Your task to perform on an android device: Open the calendar app, open the side menu, and click the "Day" option Image 0: 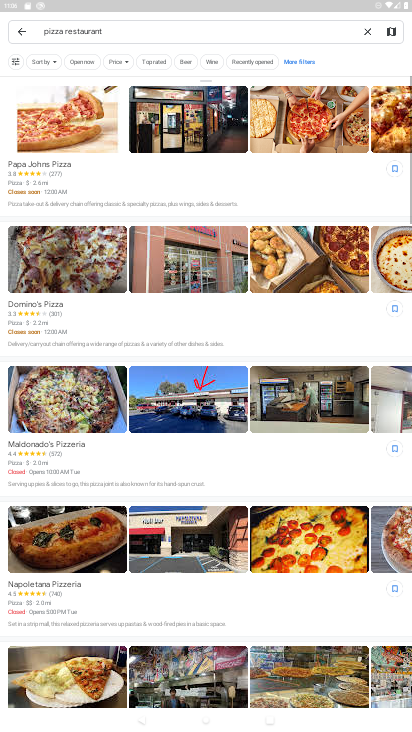
Step 0: press home button
Your task to perform on an android device: Open the calendar app, open the side menu, and click the "Day" option Image 1: 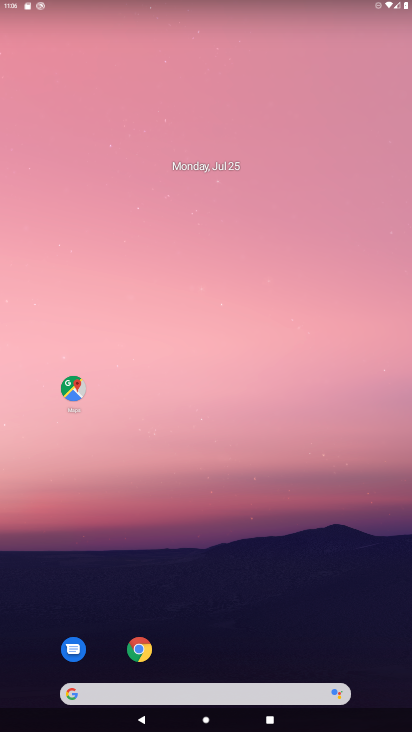
Step 1: drag from (398, 678) to (351, 143)
Your task to perform on an android device: Open the calendar app, open the side menu, and click the "Day" option Image 2: 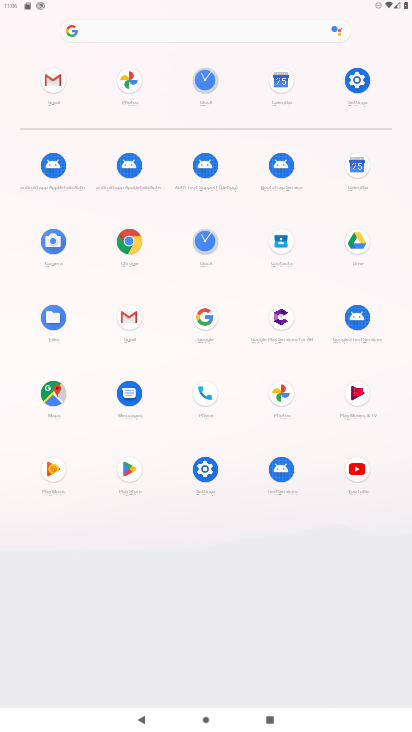
Step 2: click (356, 165)
Your task to perform on an android device: Open the calendar app, open the side menu, and click the "Day" option Image 3: 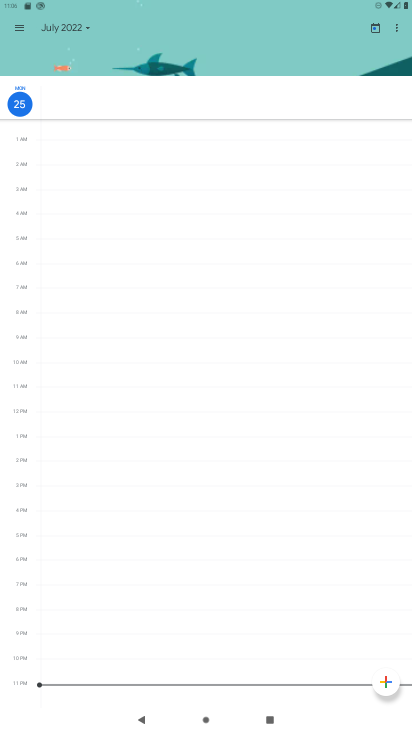
Step 3: click (20, 30)
Your task to perform on an android device: Open the calendar app, open the side menu, and click the "Day" option Image 4: 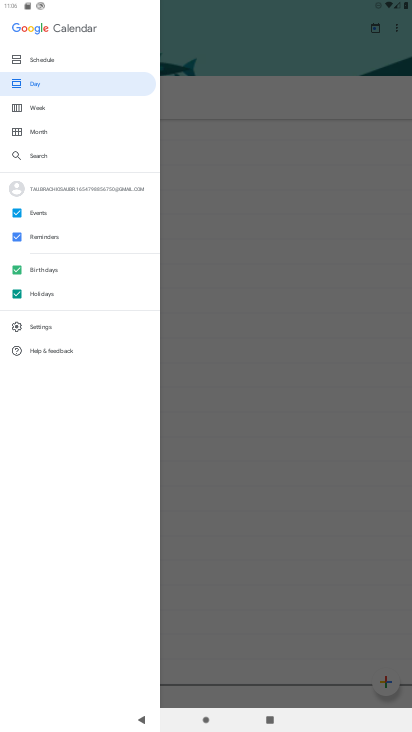
Step 4: click (30, 84)
Your task to perform on an android device: Open the calendar app, open the side menu, and click the "Day" option Image 5: 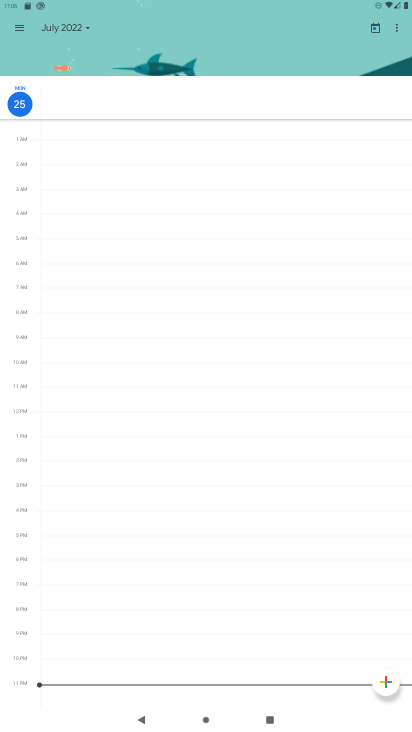
Step 5: task complete